Your task to perform on an android device: toggle javascript in the chrome app Image 0: 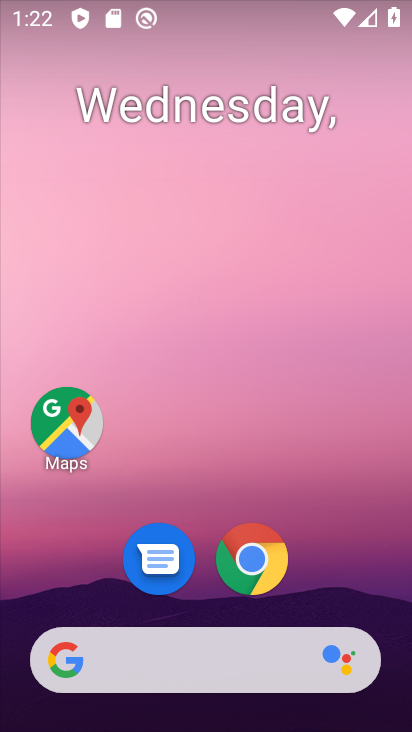
Step 0: click (256, 579)
Your task to perform on an android device: toggle javascript in the chrome app Image 1: 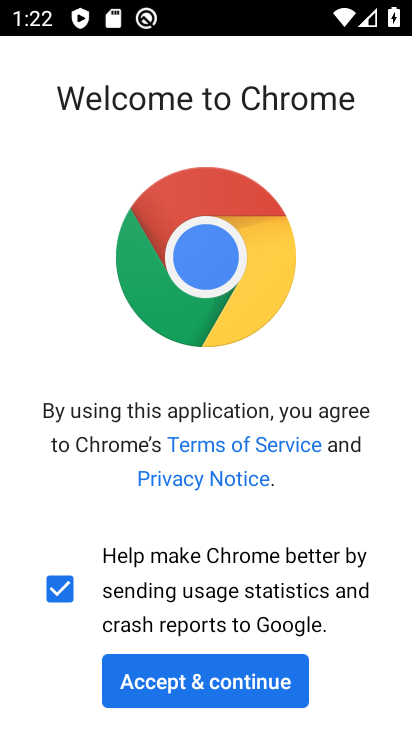
Step 1: click (242, 691)
Your task to perform on an android device: toggle javascript in the chrome app Image 2: 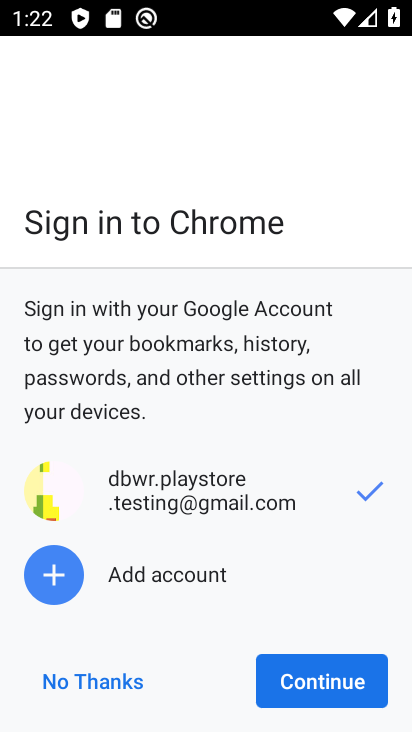
Step 2: click (299, 668)
Your task to perform on an android device: toggle javascript in the chrome app Image 3: 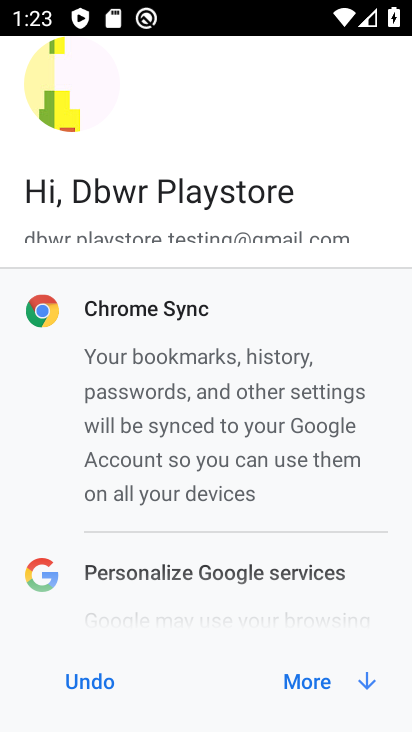
Step 3: click (301, 682)
Your task to perform on an android device: toggle javascript in the chrome app Image 4: 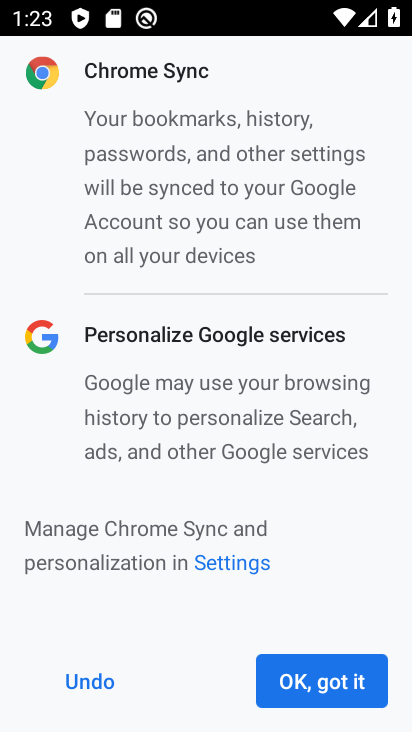
Step 4: click (301, 682)
Your task to perform on an android device: toggle javascript in the chrome app Image 5: 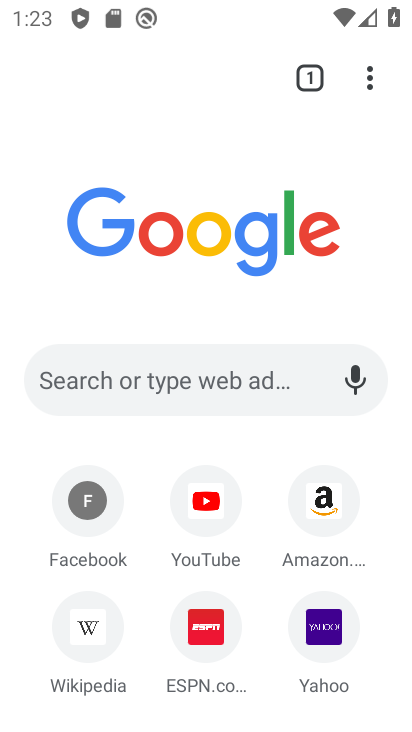
Step 5: click (373, 76)
Your task to perform on an android device: toggle javascript in the chrome app Image 6: 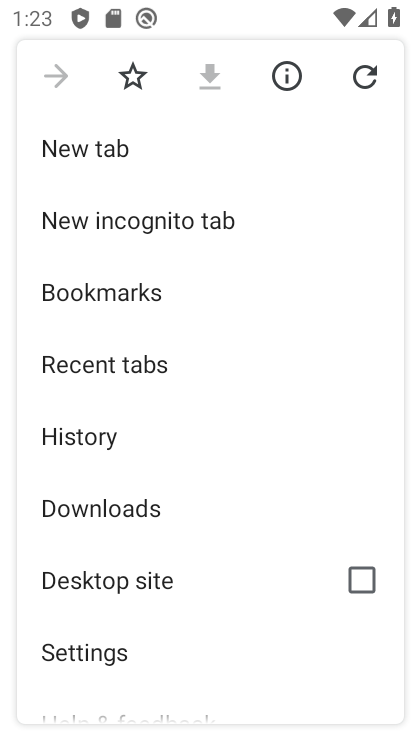
Step 6: drag from (176, 625) to (188, 375)
Your task to perform on an android device: toggle javascript in the chrome app Image 7: 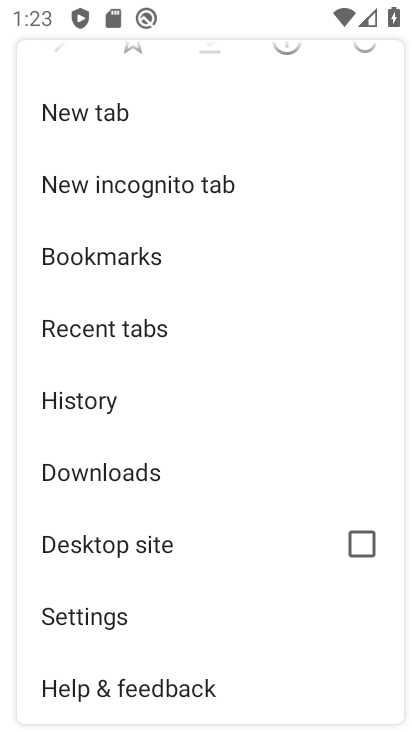
Step 7: click (106, 625)
Your task to perform on an android device: toggle javascript in the chrome app Image 8: 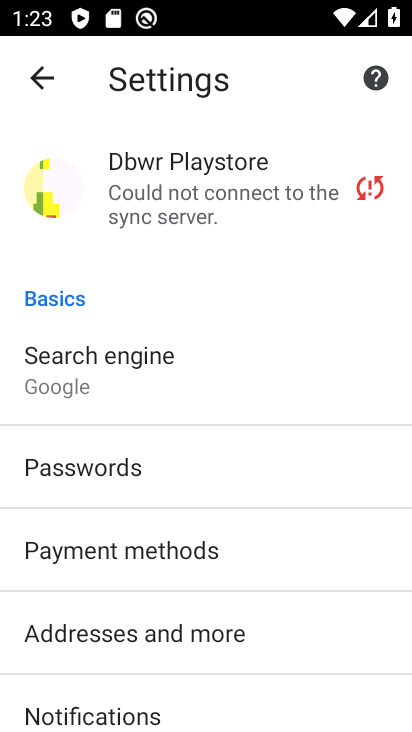
Step 8: drag from (90, 564) to (129, 239)
Your task to perform on an android device: toggle javascript in the chrome app Image 9: 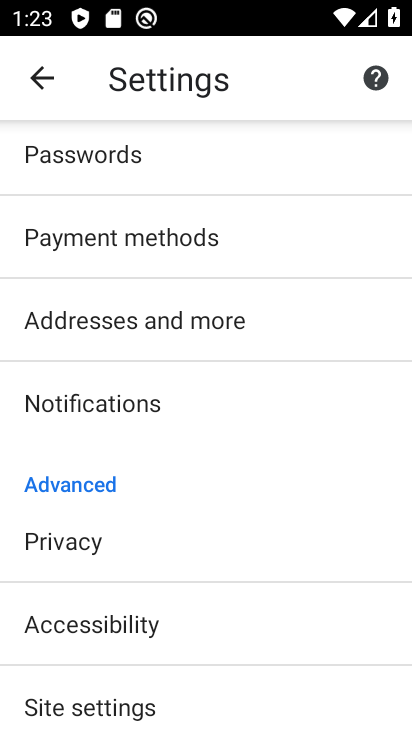
Step 9: click (114, 701)
Your task to perform on an android device: toggle javascript in the chrome app Image 10: 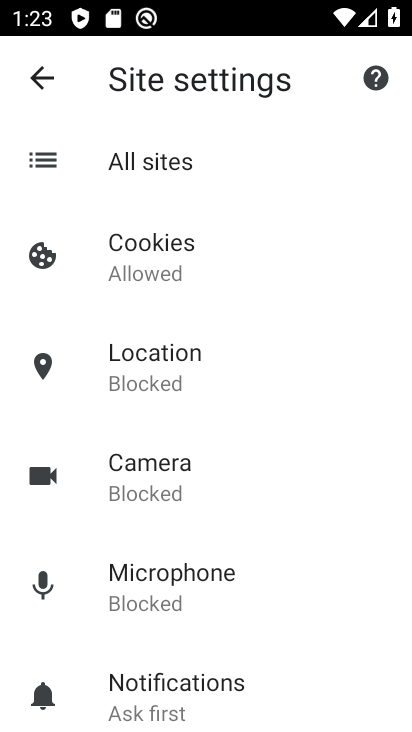
Step 10: drag from (168, 549) to (189, 212)
Your task to perform on an android device: toggle javascript in the chrome app Image 11: 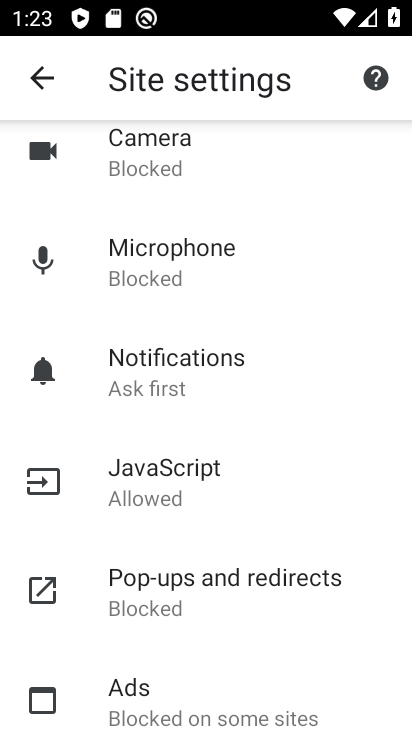
Step 11: click (178, 484)
Your task to perform on an android device: toggle javascript in the chrome app Image 12: 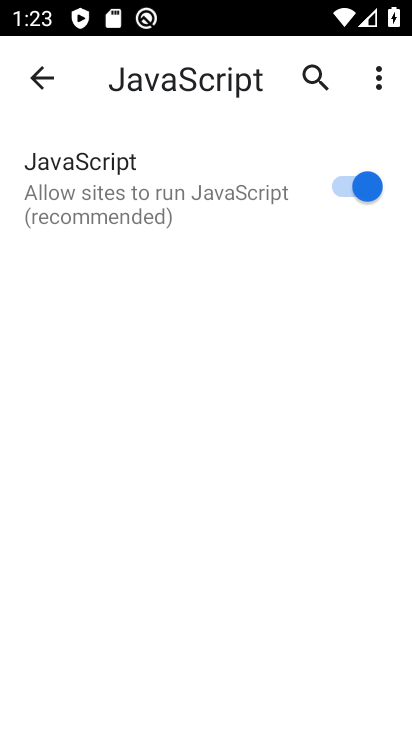
Step 12: task complete